Your task to perform on an android device: turn on notifications settings in the gmail app Image 0: 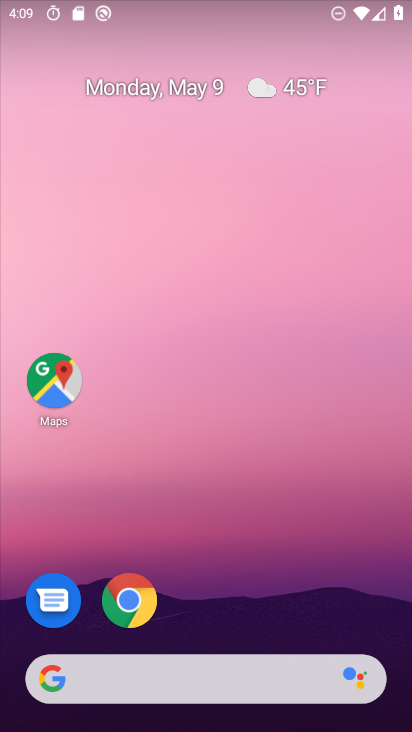
Step 0: drag from (229, 531) to (223, 27)
Your task to perform on an android device: turn on notifications settings in the gmail app Image 1: 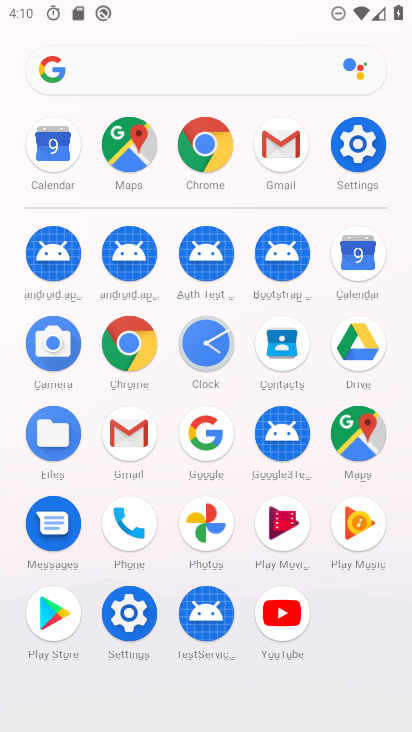
Step 1: drag from (13, 523) to (3, 233)
Your task to perform on an android device: turn on notifications settings in the gmail app Image 2: 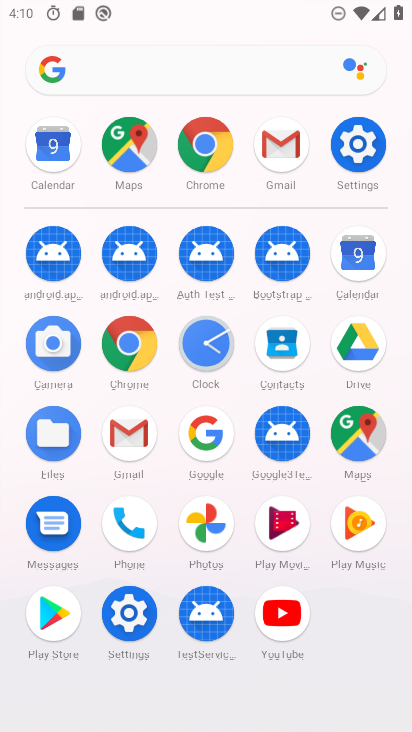
Step 2: click (122, 434)
Your task to perform on an android device: turn on notifications settings in the gmail app Image 3: 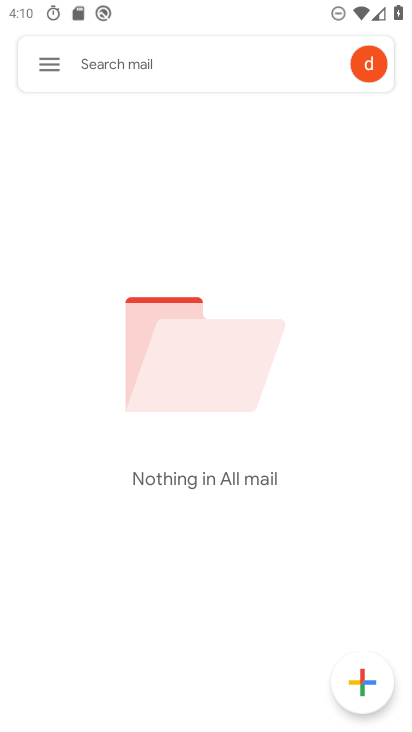
Step 3: click (48, 63)
Your task to perform on an android device: turn on notifications settings in the gmail app Image 4: 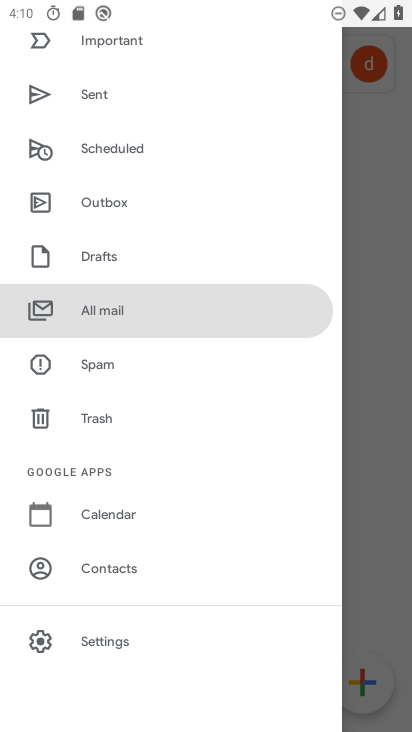
Step 4: drag from (138, 603) to (194, 231)
Your task to perform on an android device: turn on notifications settings in the gmail app Image 5: 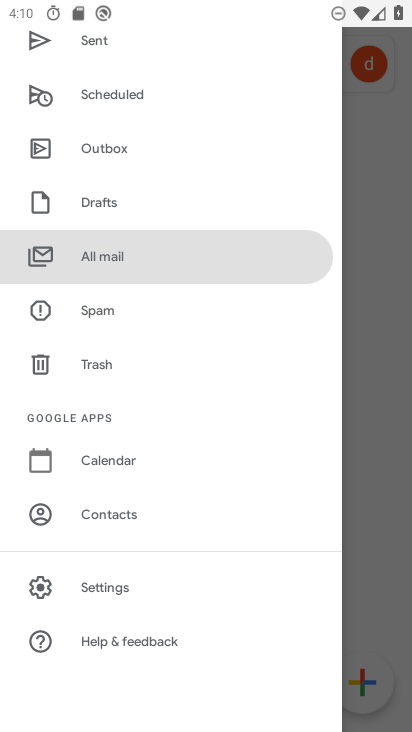
Step 5: click (121, 576)
Your task to perform on an android device: turn on notifications settings in the gmail app Image 6: 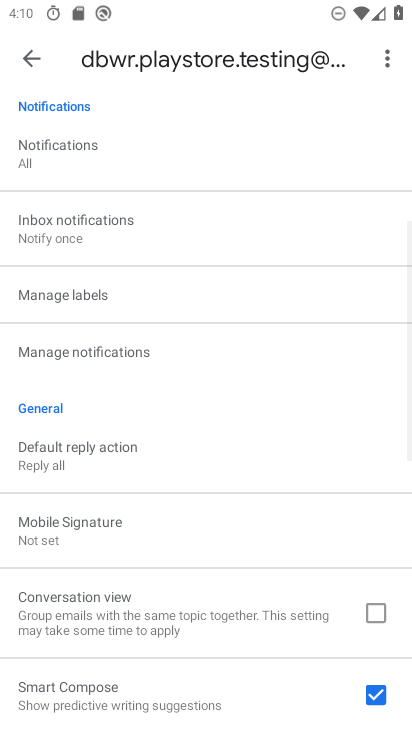
Step 6: drag from (223, 630) to (261, 112)
Your task to perform on an android device: turn on notifications settings in the gmail app Image 7: 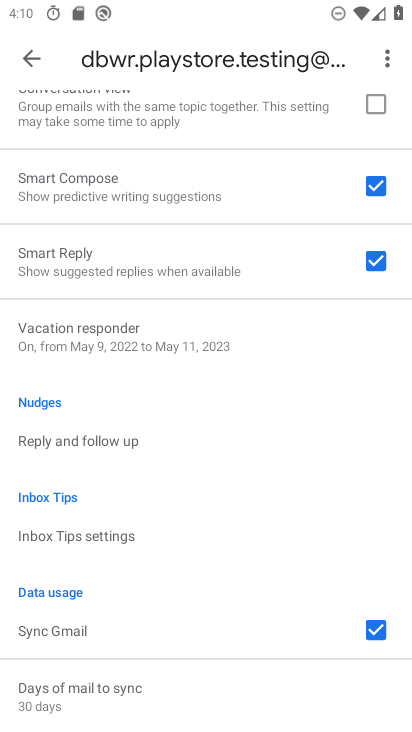
Step 7: drag from (194, 166) to (202, 534)
Your task to perform on an android device: turn on notifications settings in the gmail app Image 8: 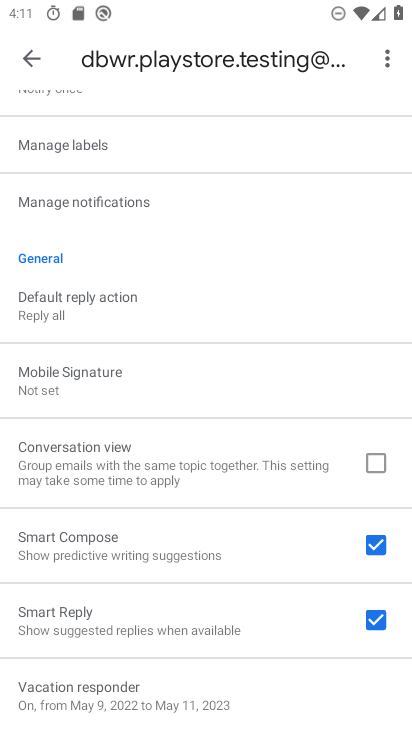
Step 8: drag from (242, 476) to (240, 149)
Your task to perform on an android device: turn on notifications settings in the gmail app Image 9: 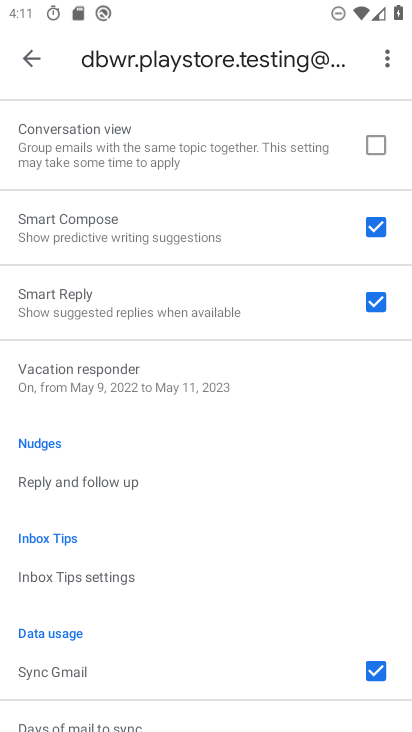
Step 9: drag from (246, 200) to (234, 572)
Your task to perform on an android device: turn on notifications settings in the gmail app Image 10: 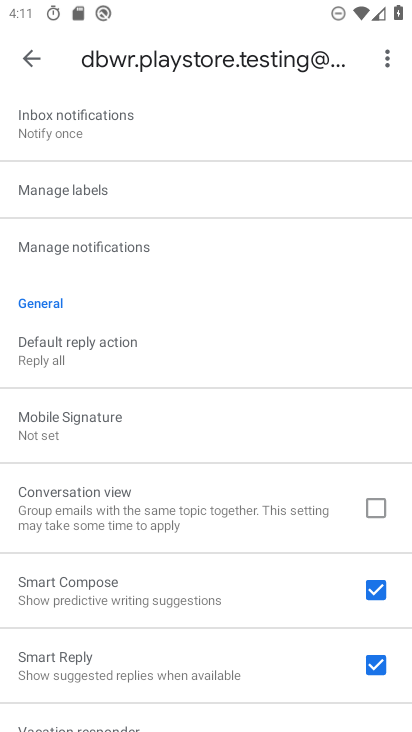
Step 10: click (117, 249)
Your task to perform on an android device: turn on notifications settings in the gmail app Image 11: 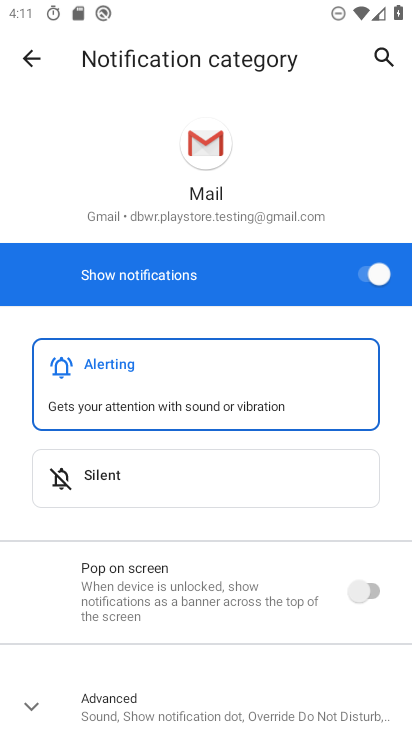
Step 11: task complete